Your task to perform on an android device: turn off data saver in the chrome app Image 0: 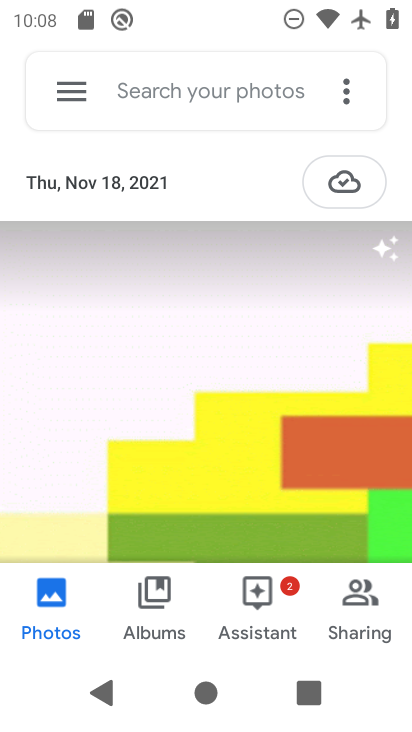
Step 0: press home button
Your task to perform on an android device: turn off data saver in the chrome app Image 1: 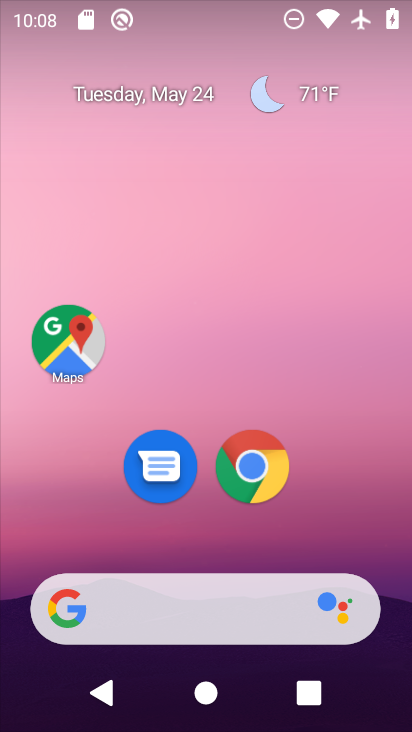
Step 1: click (269, 466)
Your task to perform on an android device: turn off data saver in the chrome app Image 2: 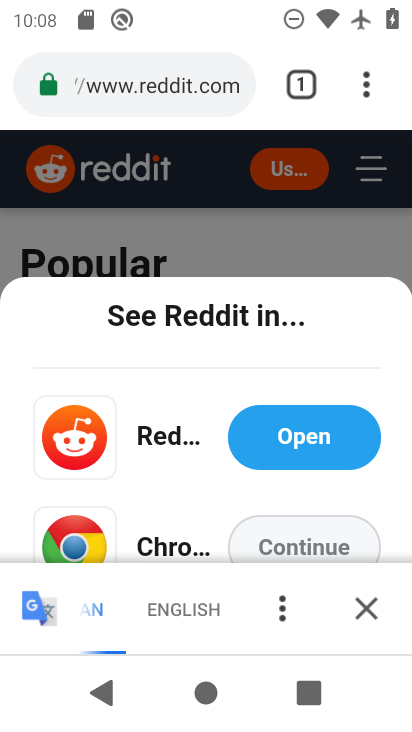
Step 2: click (376, 81)
Your task to perform on an android device: turn off data saver in the chrome app Image 3: 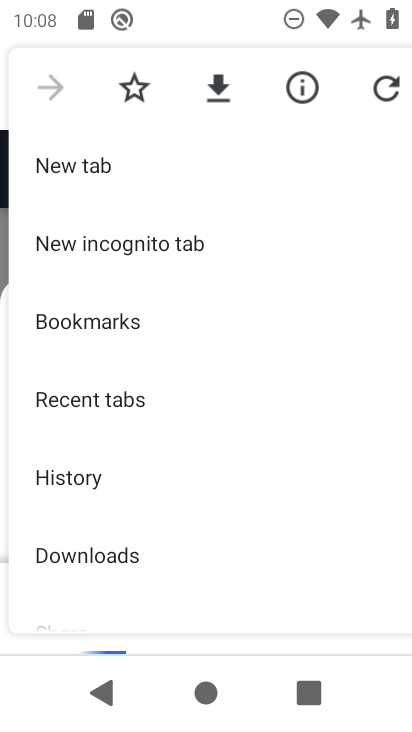
Step 3: drag from (117, 543) to (127, 119)
Your task to perform on an android device: turn off data saver in the chrome app Image 4: 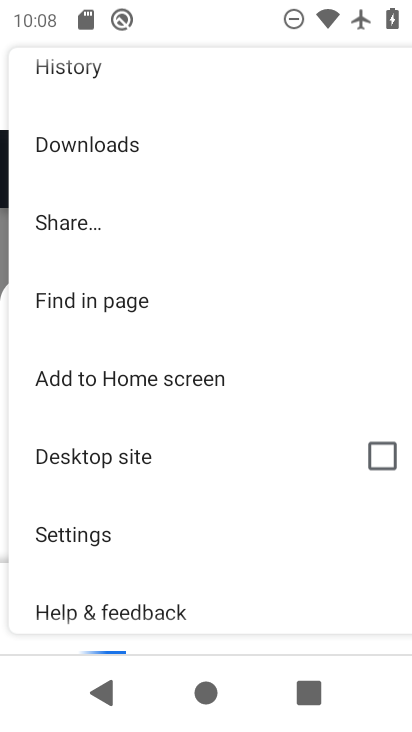
Step 4: click (96, 549)
Your task to perform on an android device: turn off data saver in the chrome app Image 5: 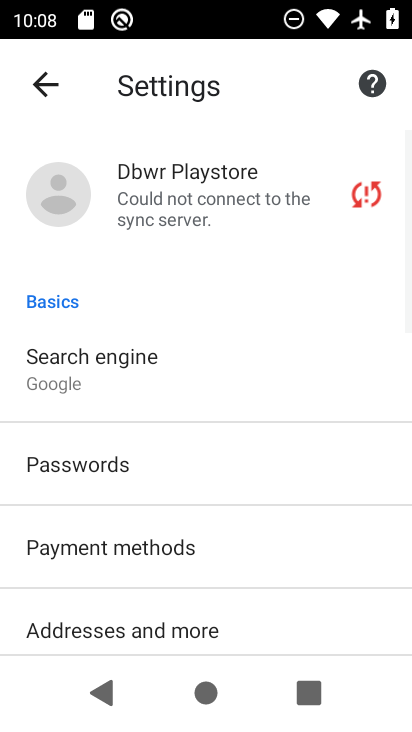
Step 5: drag from (108, 556) to (159, 212)
Your task to perform on an android device: turn off data saver in the chrome app Image 6: 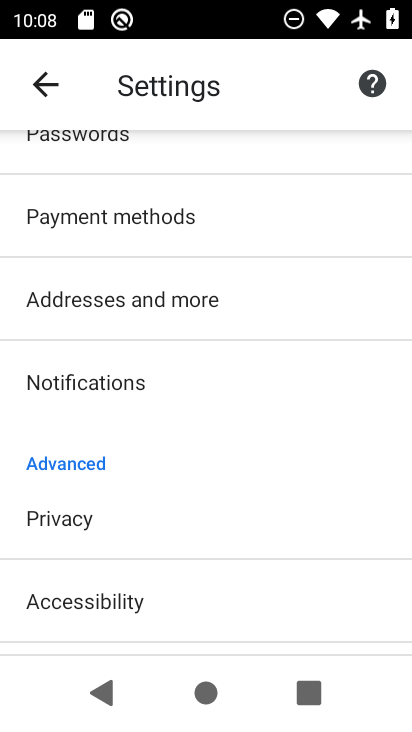
Step 6: drag from (144, 545) to (203, 143)
Your task to perform on an android device: turn off data saver in the chrome app Image 7: 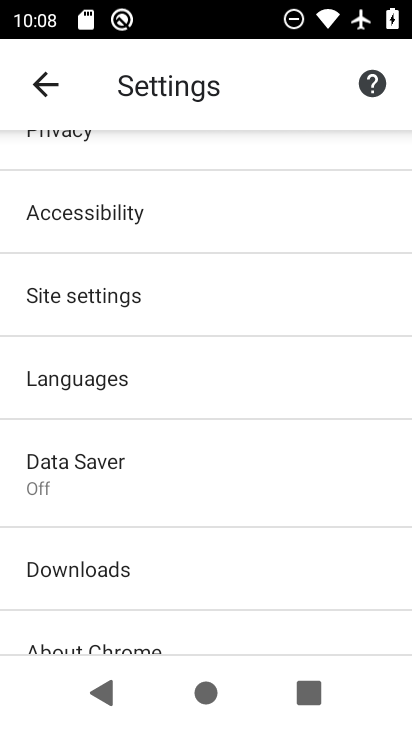
Step 7: click (120, 487)
Your task to perform on an android device: turn off data saver in the chrome app Image 8: 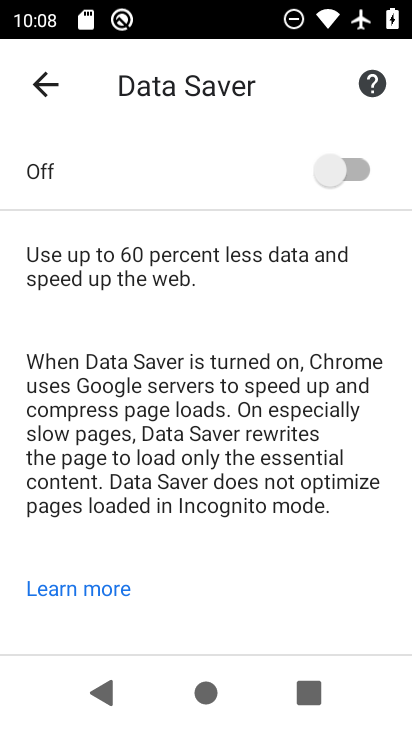
Step 8: task complete